Your task to perform on an android device: toggle improve location accuracy Image 0: 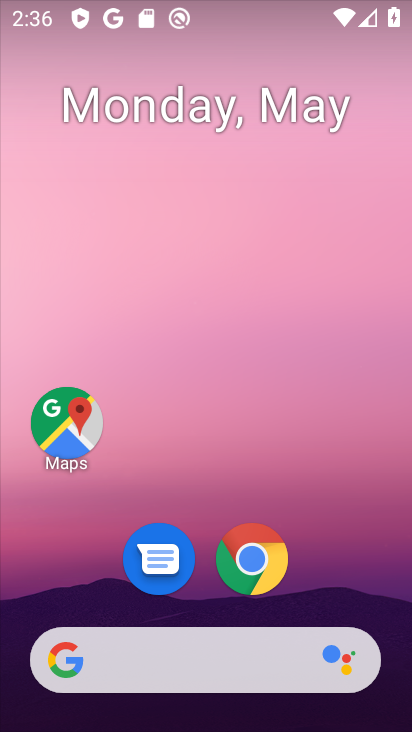
Step 0: drag from (327, 606) to (272, 62)
Your task to perform on an android device: toggle improve location accuracy Image 1: 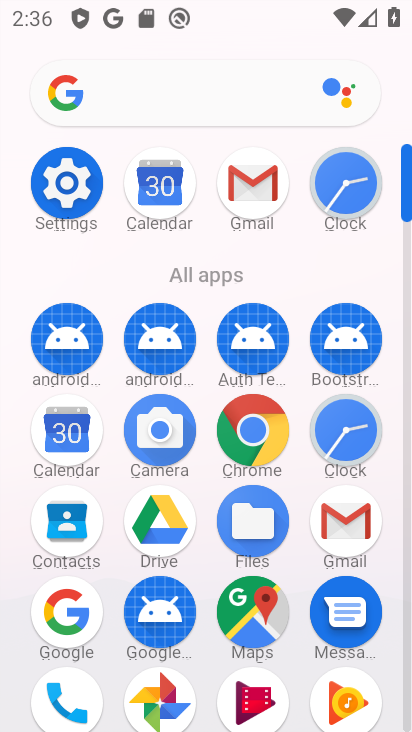
Step 1: click (71, 188)
Your task to perform on an android device: toggle improve location accuracy Image 2: 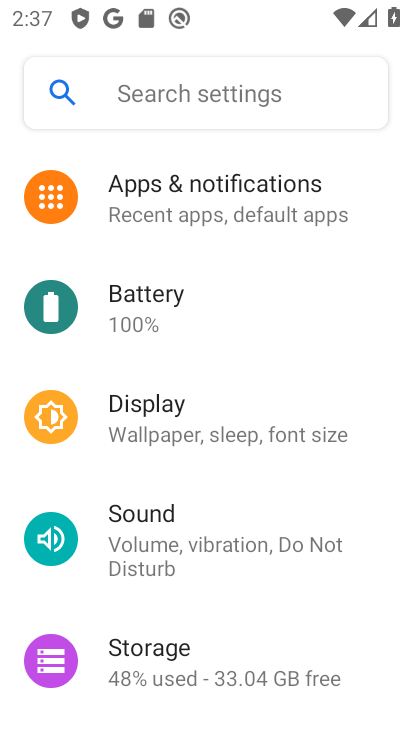
Step 2: drag from (256, 622) to (255, 183)
Your task to perform on an android device: toggle improve location accuracy Image 3: 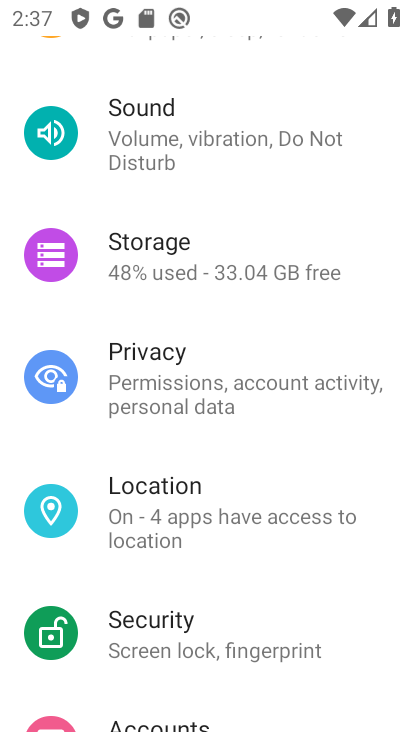
Step 3: drag from (224, 652) to (206, 423)
Your task to perform on an android device: toggle improve location accuracy Image 4: 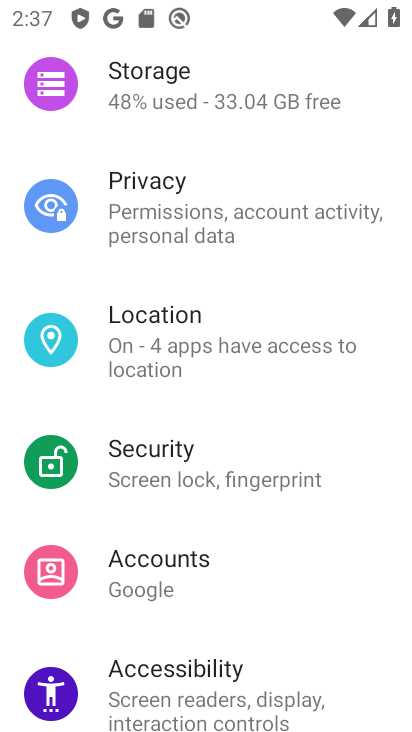
Step 4: click (210, 317)
Your task to perform on an android device: toggle improve location accuracy Image 5: 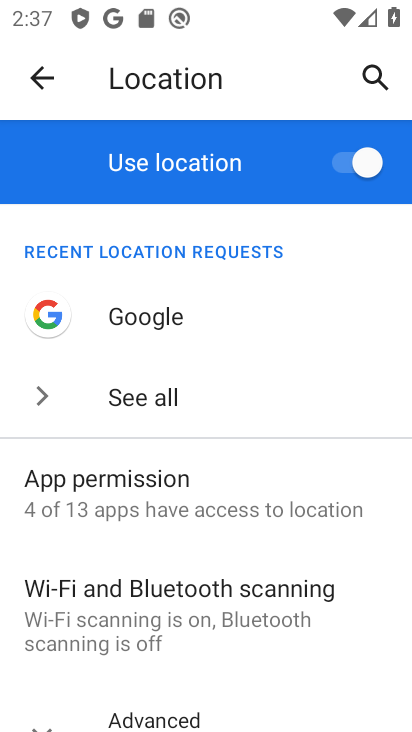
Step 5: drag from (167, 675) to (227, 304)
Your task to perform on an android device: toggle improve location accuracy Image 6: 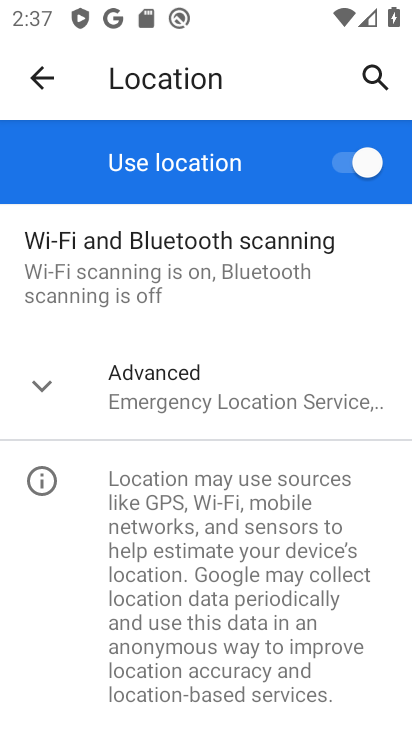
Step 6: click (179, 385)
Your task to perform on an android device: toggle improve location accuracy Image 7: 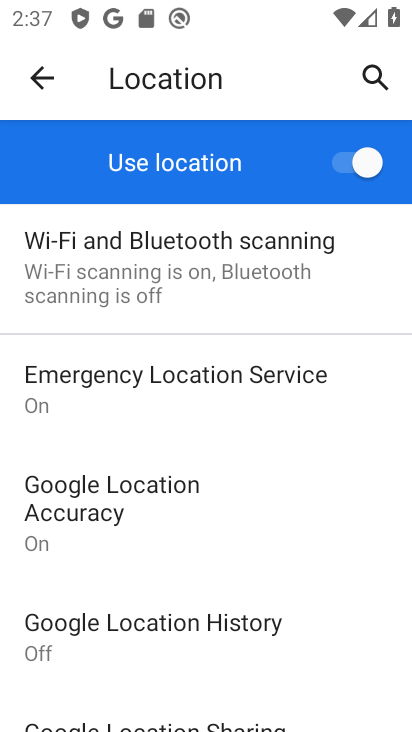
Step 7: drag from (181, 592) to (180, 438)
Your task to perform on an android device: toggle improve location accuracy Image 8: 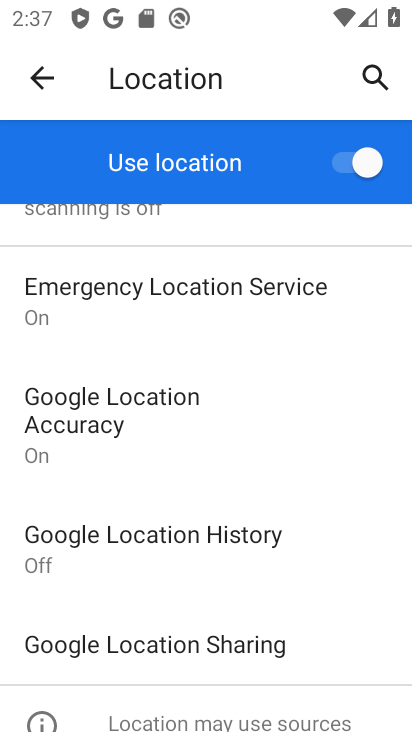
Step 8: click (118, 426)
Your task to perform on an android device: toggle improve location accuracy Image 9: 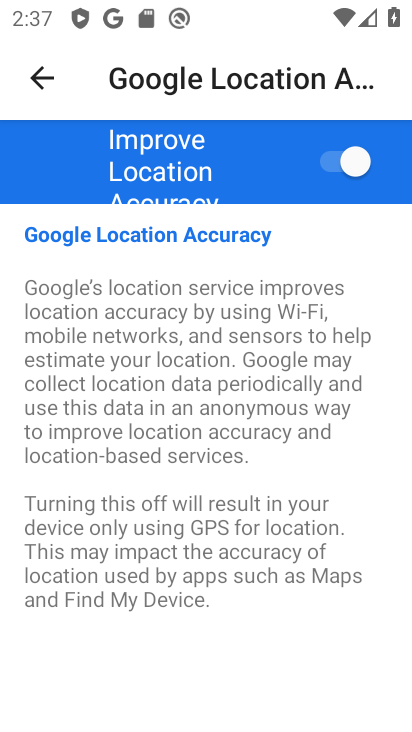
Step 9: click (339, 194)
Your task to perform on an android device: toggle improve location accuracy Image 10: 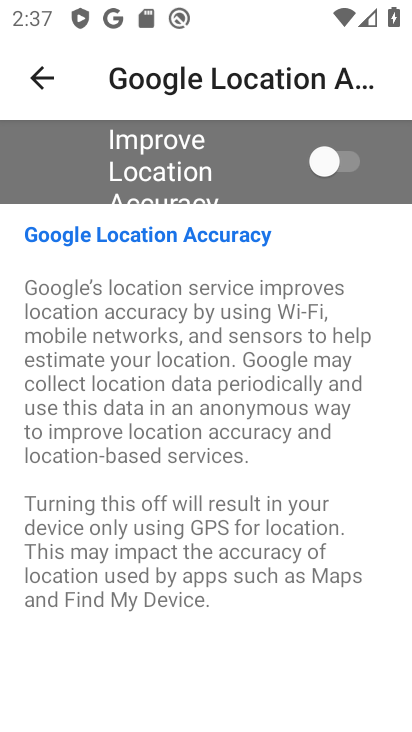
Step 10: task complete